Your task to perform on an android device: turn off priority inbox in the gmail app Image 0: 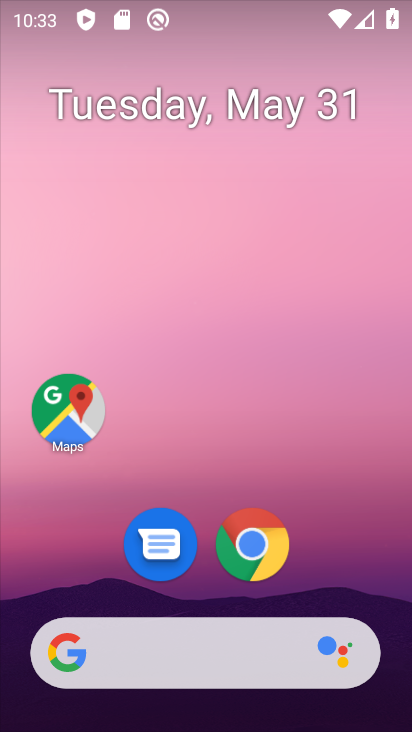
Step 0: drag from (206, 512) to (206, 229)
Your task to perform on an android device: turn off priority inbox in the gmail app Image 1: 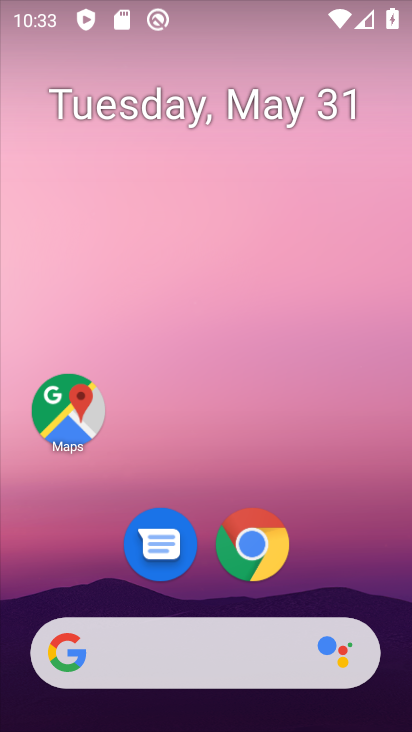
Step 1: drag from (194, 599) to (212, 221)
Your task to perform on an android device: turn off priority inbox in the gmail app Image 2: 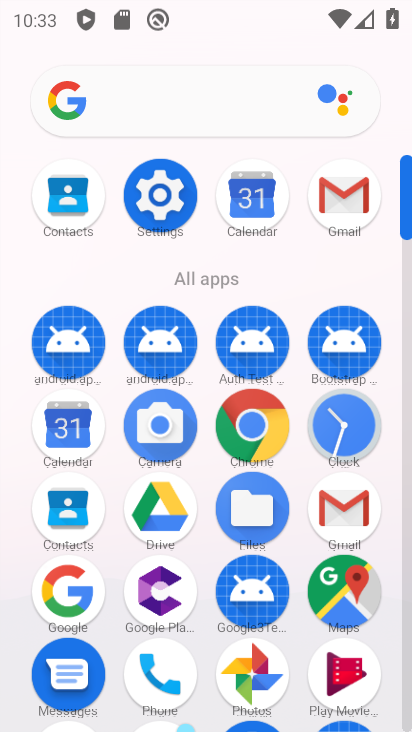
Step 2: click (356, 185)
Your task to perform on an android device: turn off priority inbox in the gmail app Image 3: 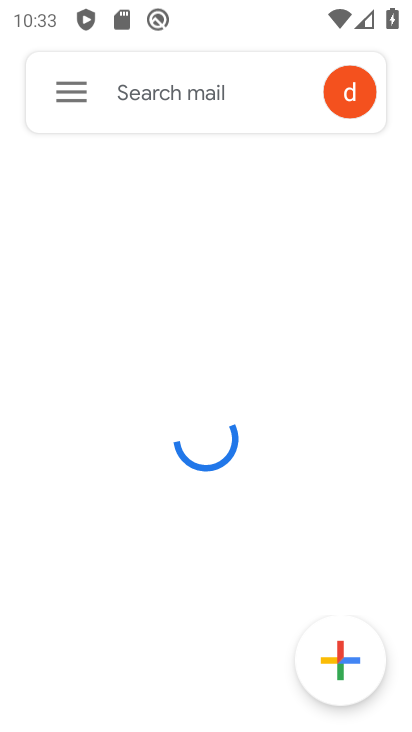
Step 3: click (52, 106)
Your task to perform on an android device: turn off priority inbox in the gmail app Image 4: 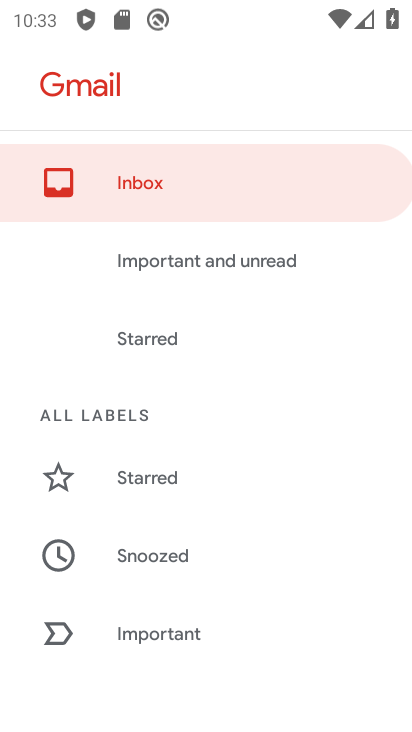
Step 4: drag from (213, 604) to (226, 217)
Your task to perform on an android device: turn off priority inbox in the gmail app Image 5: 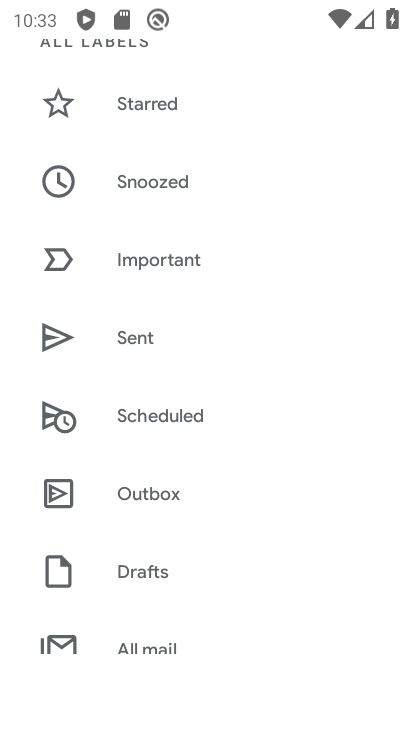
Step 5: drag from (218, 569) to (230, 216)
Your task to perform on an android device: turn off priority inbox in the gmail app Image 6: 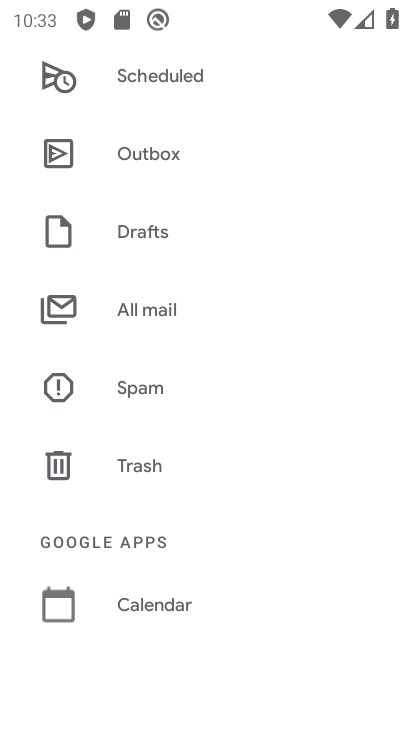
Step 6: drag from (182, 628) to (210, 210)
Your task to perform on an android device: turn off priority inbox in the gmail app Image 7: 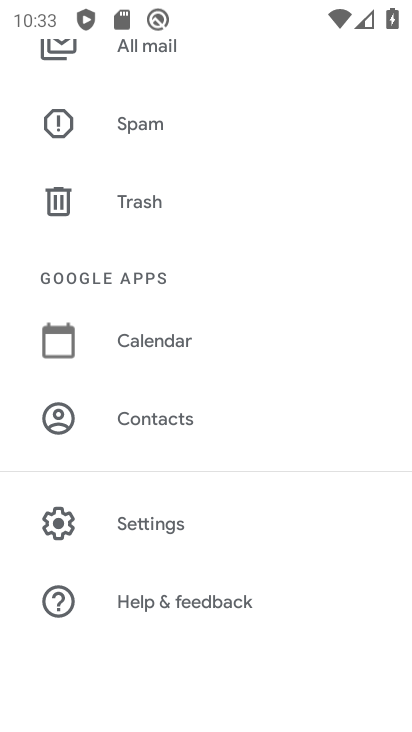
Step 7: click (155, 530)
Your task to perform on an android device: turn off priority inbox in the gmail app Image 8: 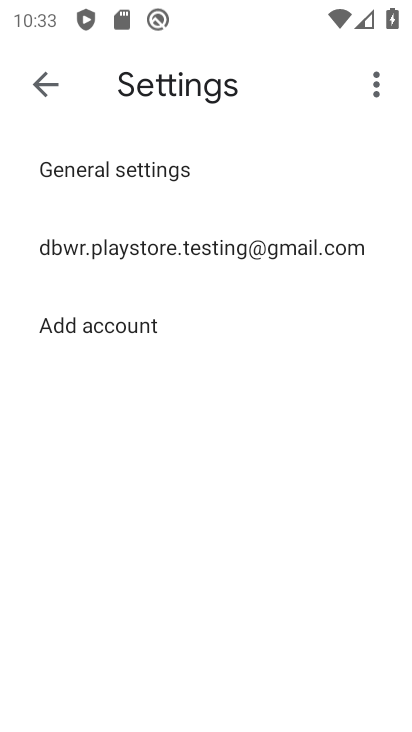
Step 8: click (234, 234)
Your task to perform on an android device: turn off priority inbox in the gmail app Image 9: 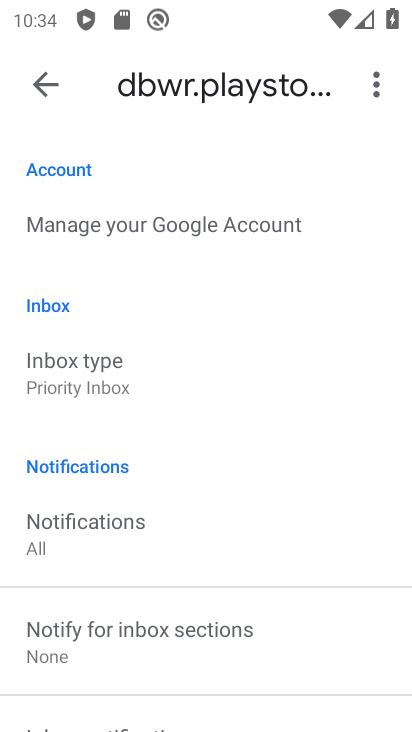
Step 9: click (143, 379)
Your task to perform on an android device: turn off priority inbox in the gmail app Image 10: 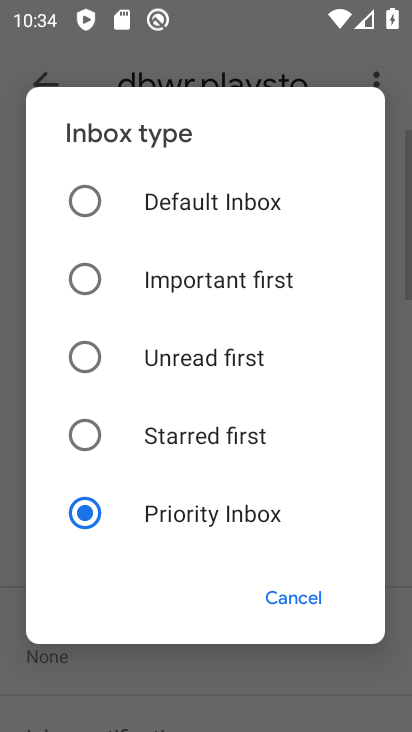
Step 10: click (166, 205)
Your task to perform on an android device: turn off priority inbox in the gmail app Image 11: 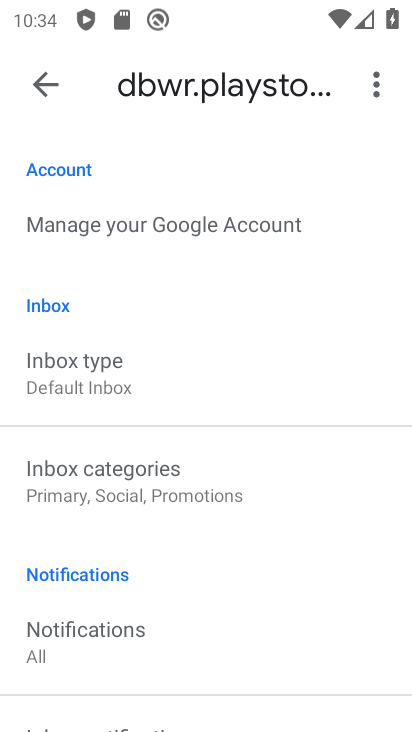
Step 11: task complete